Your task to perform on an android device: Do I have any events today? Image 0: 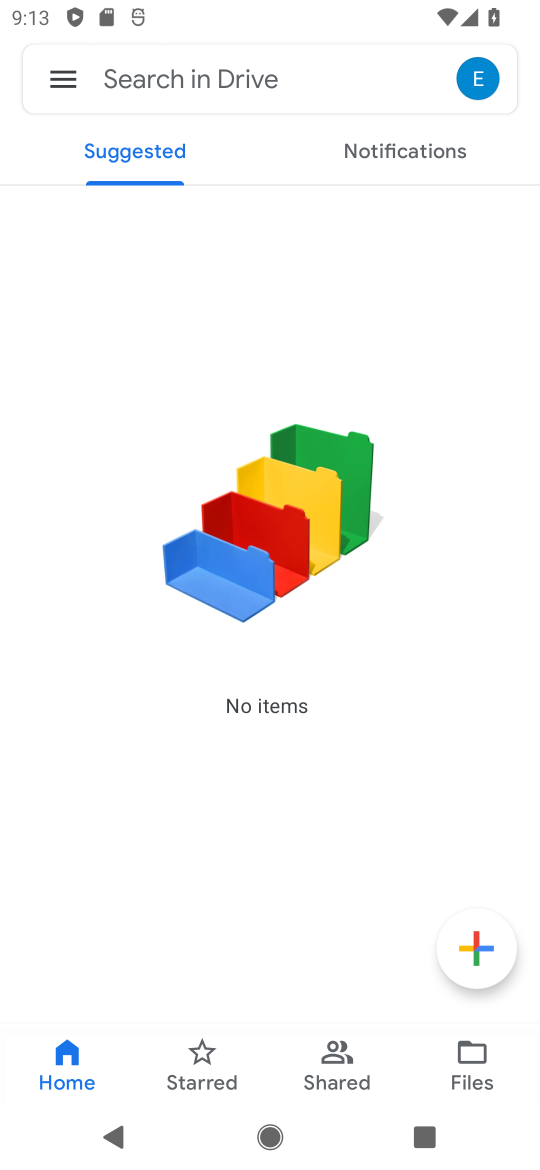
Step 0: press home button
Your task to perform on an android device: Do I have any events today? Image 1: 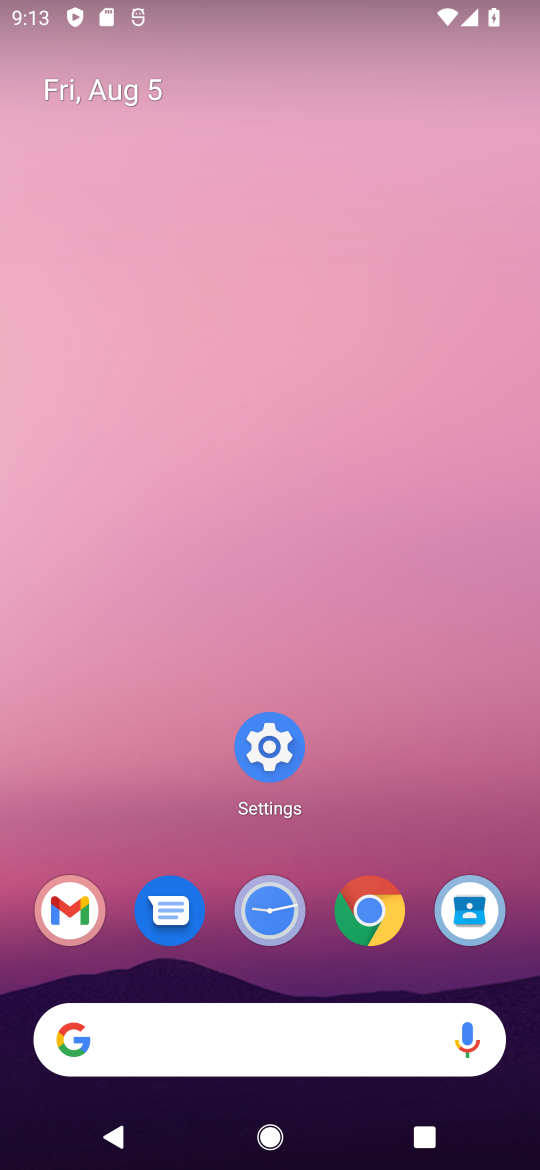
Step 1: drag from (270, 916) to (317, 218)
Your task to perform on an android device: Do I have any events today? Image 2: 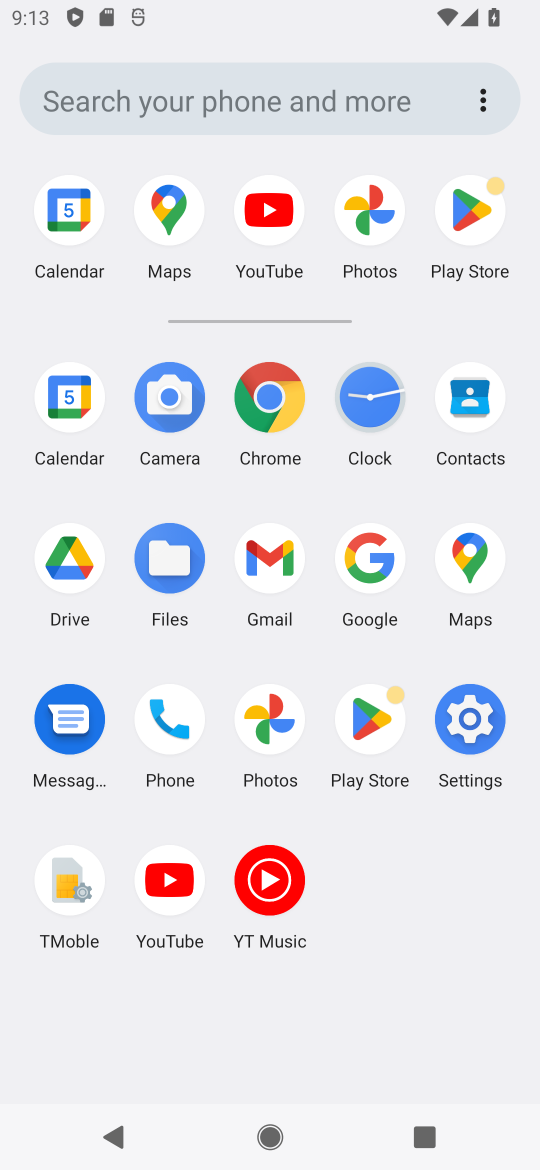
Step 2: click (70, 223)
Your task to perform on an android device: Do I have any events today? Image 3: 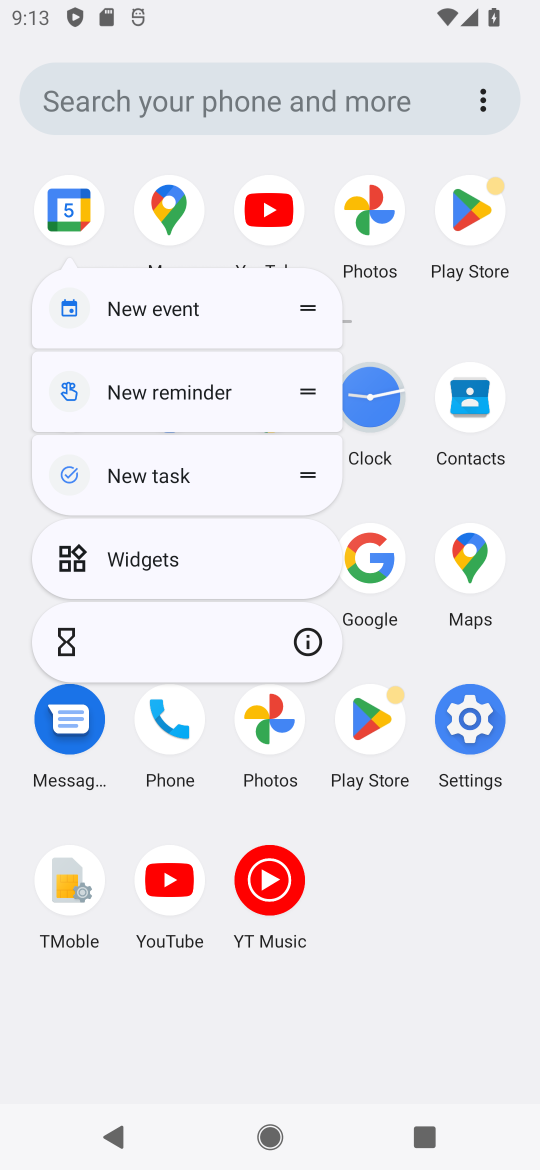
Step 3: click (68, 210)
Your task to perform on an android device: Do I have any events today? Image 4: 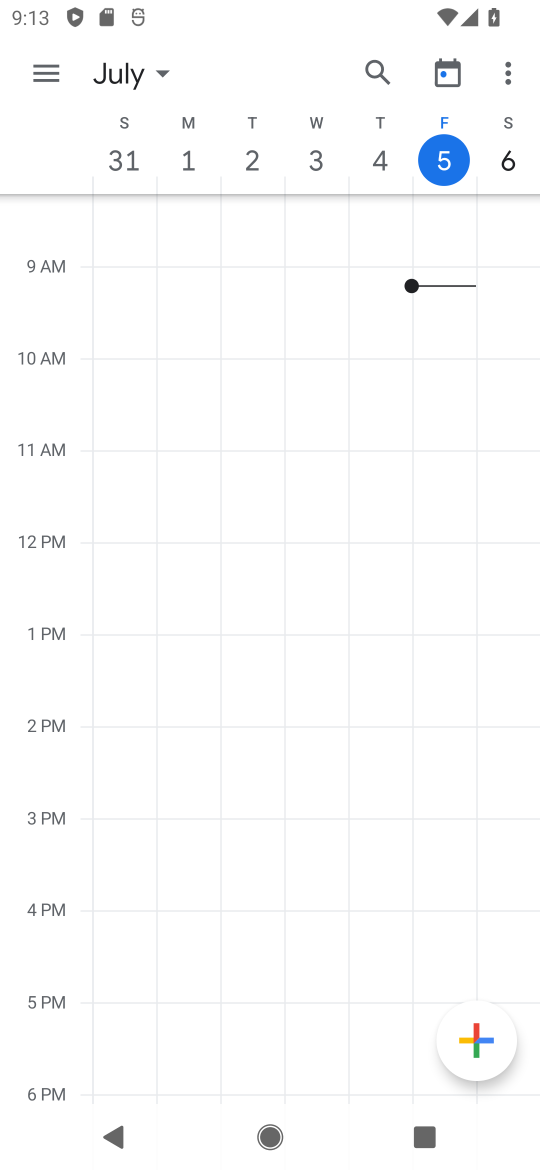
Step 4: click (109, 74)
Your task to perform on an android device: Do I have any events today? Image 5: 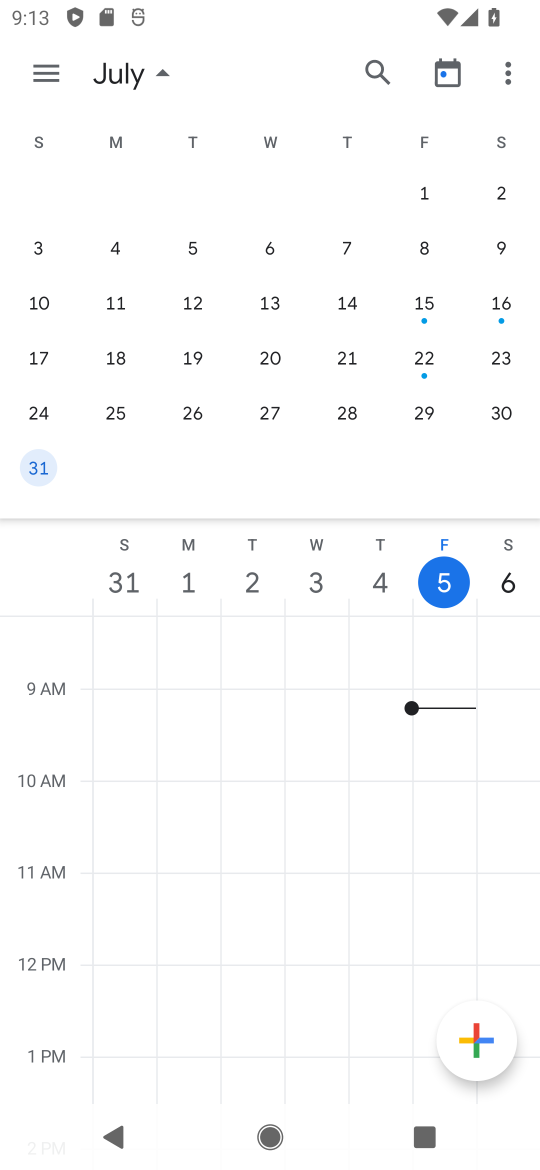
Step 5: drag from (441, 333) to (4, 385)
Your task to perform on an android device: Do I have any events today? Image 6: 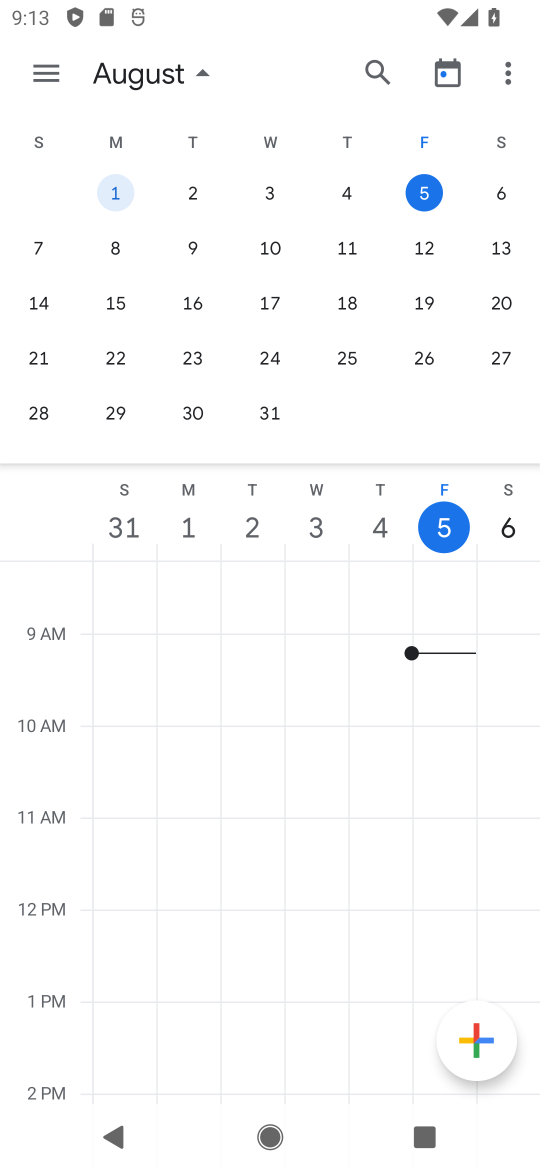
Step 6: click (423, 189)
Your task to perform on an android device: Do I have any events today? Image 7: 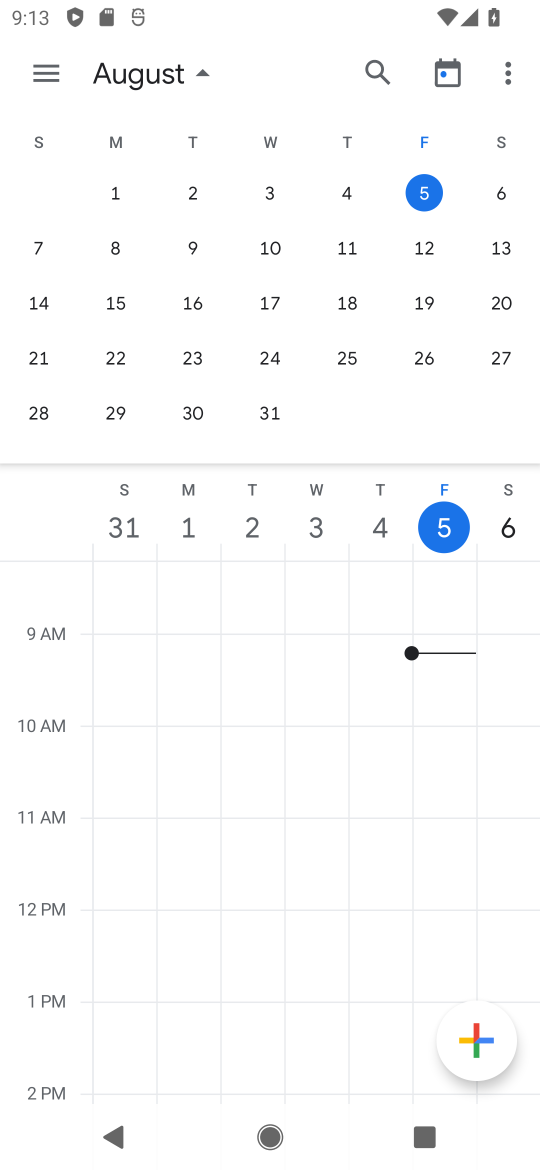
Step 7: click (50, 61)
Your task to perform on an android device: Do I have any events today? Image 8: 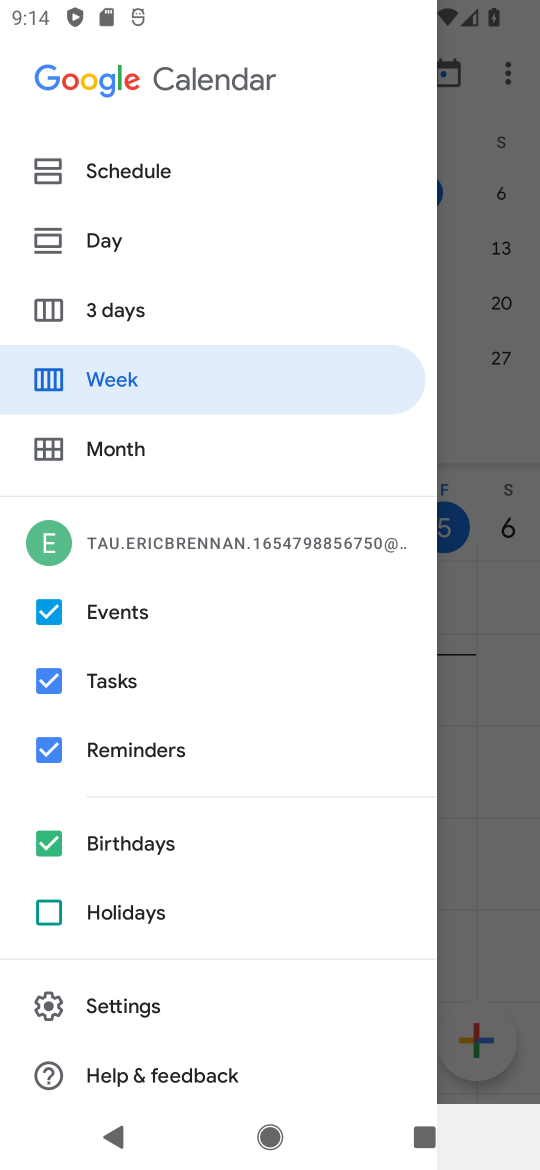
Step 8: click (122, 227)
Your task to perform on an android device: Do I have any events today? Image 9: 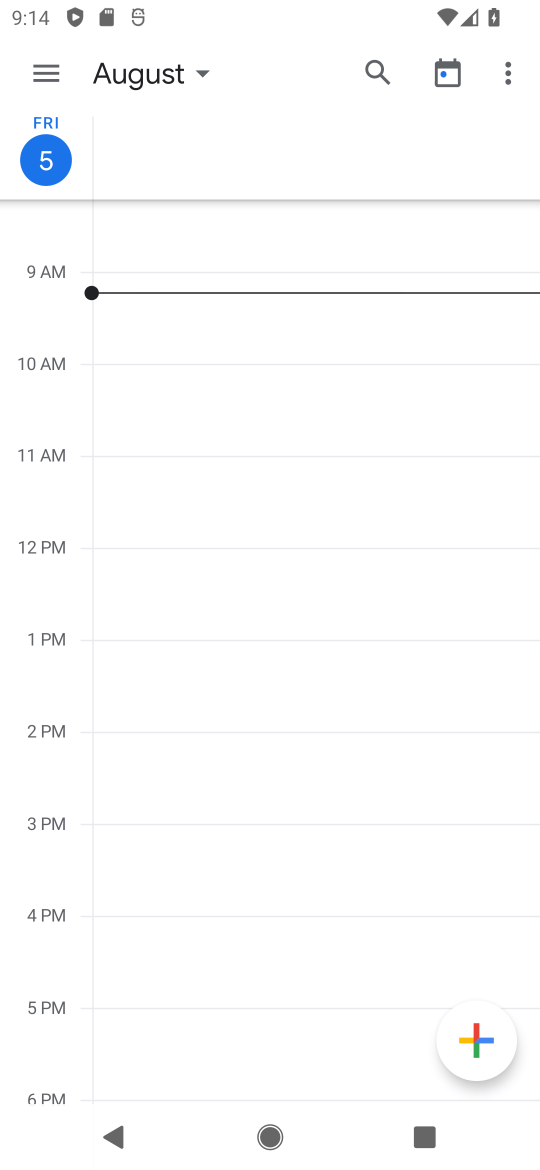
Step 9: click (44, 67)
Your task to perform on an android device: Do I have any events today? Image 10: 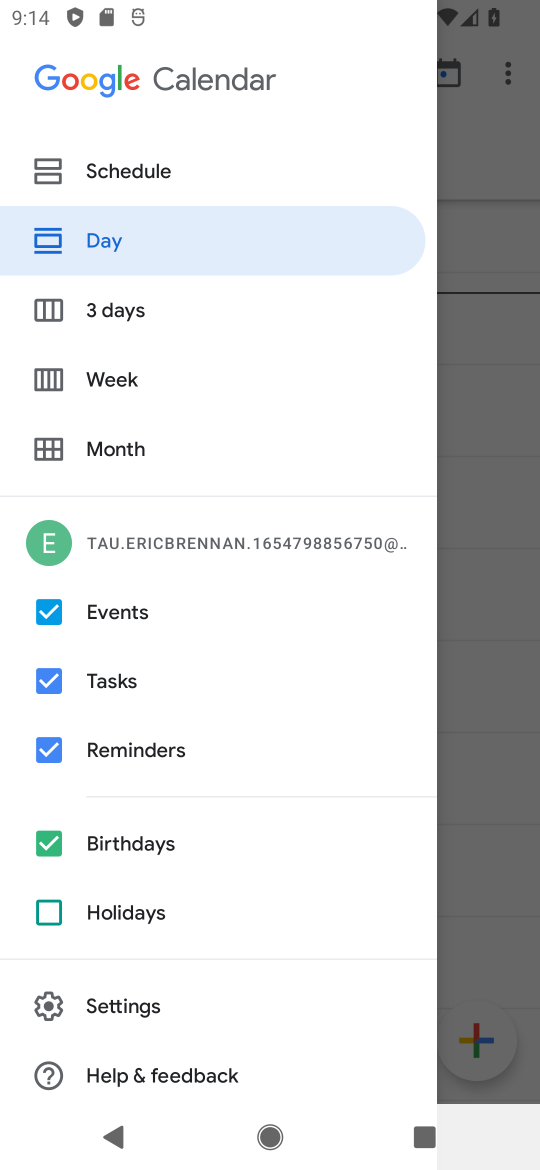
Step 10: click (130, 172)
Your task to perform on an android device: Do I have any events today? Image 11: 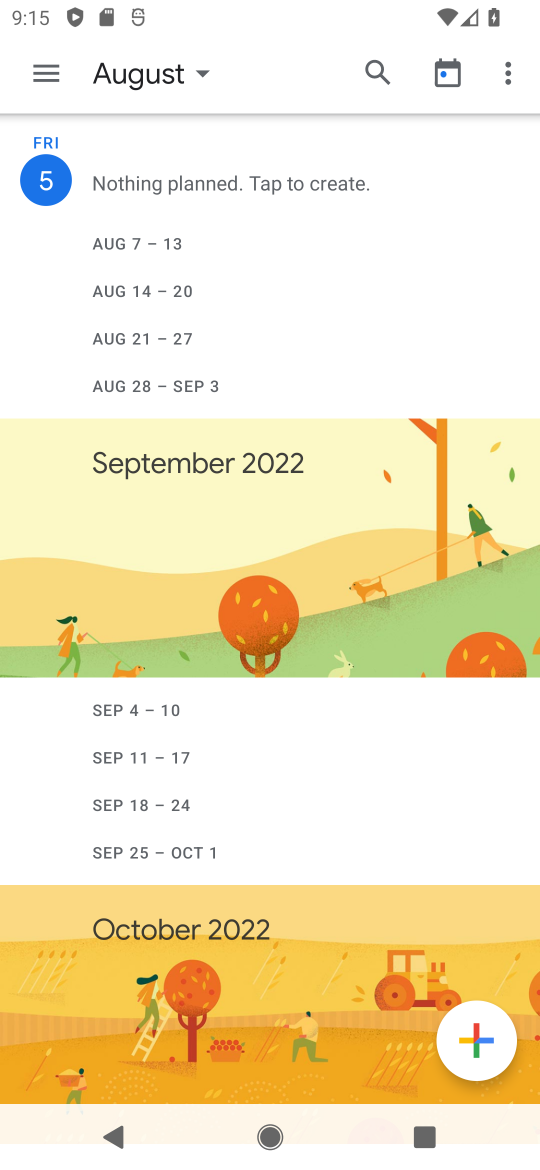
Step 11: task complete